Your task to perform on an android device: What's the weather? Image 0: 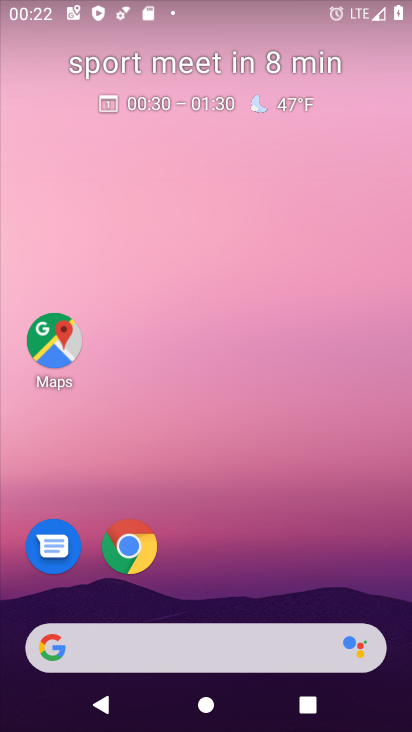
Step 0: click (302, 111)
Your task to perform on an android device: What's the weather? Image 1: 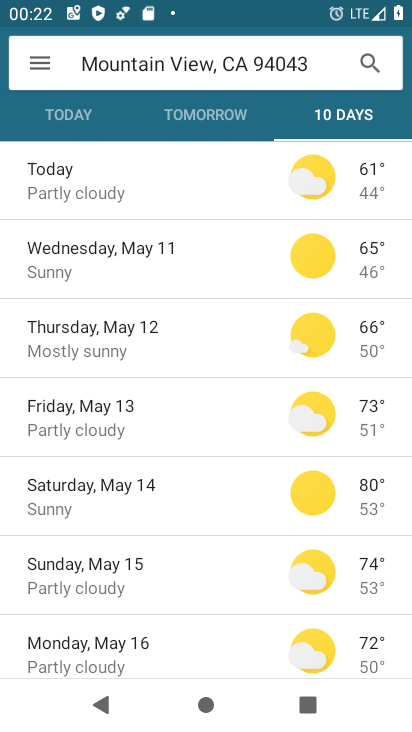
Step 1: task complete